Your task to perform on an android device: turn off priority inbox in the gmail app Image 0: 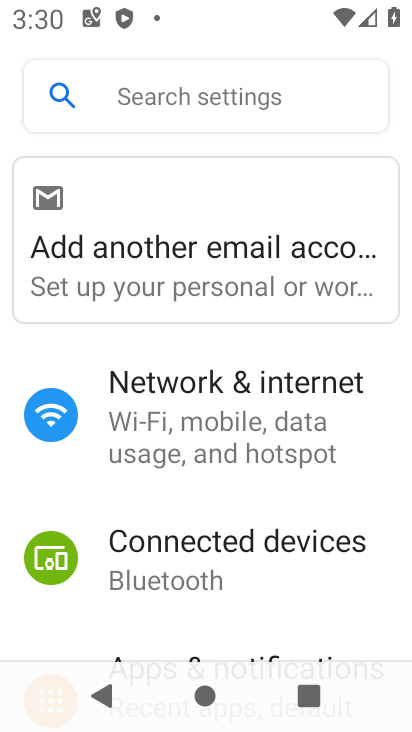
Step 0: press back button
Your task to perform on an android device: turn off priority inbox in the gmail app Image 1: 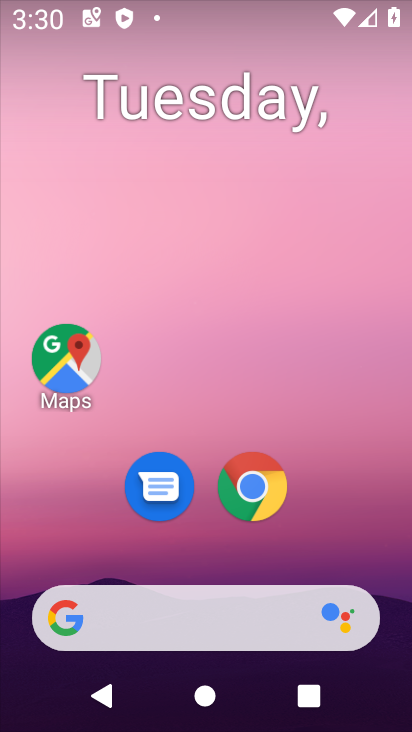
Step 1: drag from (169, 551) to (216, 10)
Your task to perform on an android device: turn off priority inbox in the gmail app Image 2: 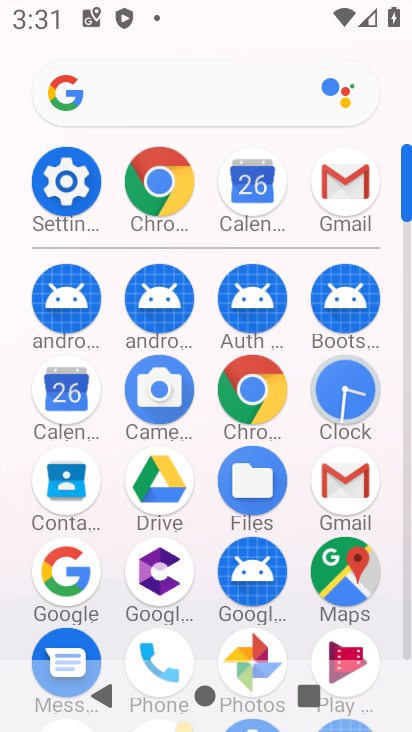
Step 2: click (338, 186)
Your task to perform on an android device: turn off priority inbox in the gmail app Image 3: 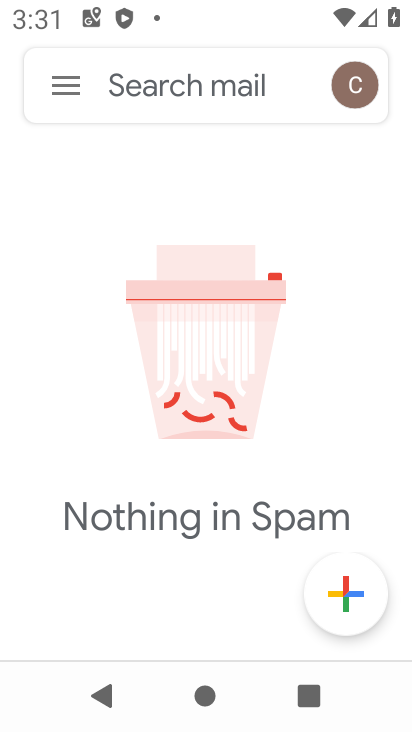
Step 3: click (71, 82)
Your task to perform on an android device: turn off priority inbox in the gmail app Image 4: 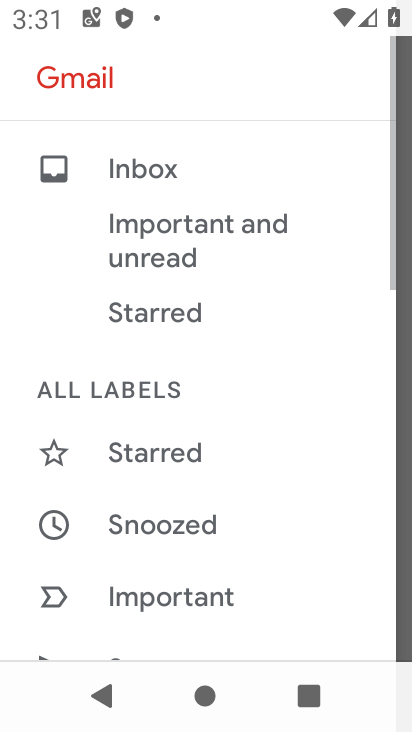
Step 4: drag from (197, 567) to (269, 4)
Your task to perform on an android device: turn off priority inbox in the gmail app Image 5: 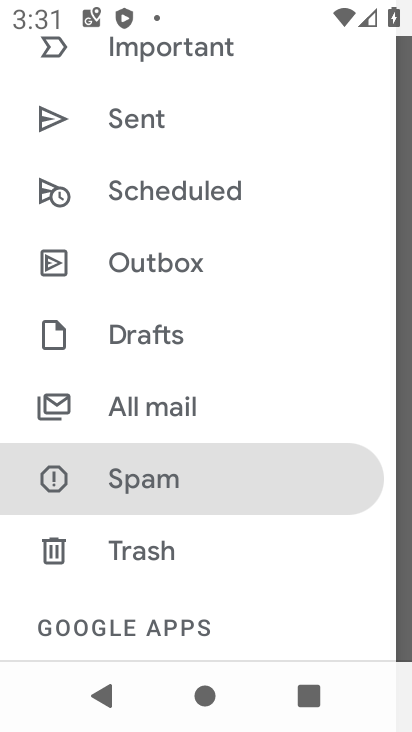
Step 5: drag from (210, 527) to (269, 6)
Your task to perform on an android device: turn off priority inbox in the gmail app Image 6: 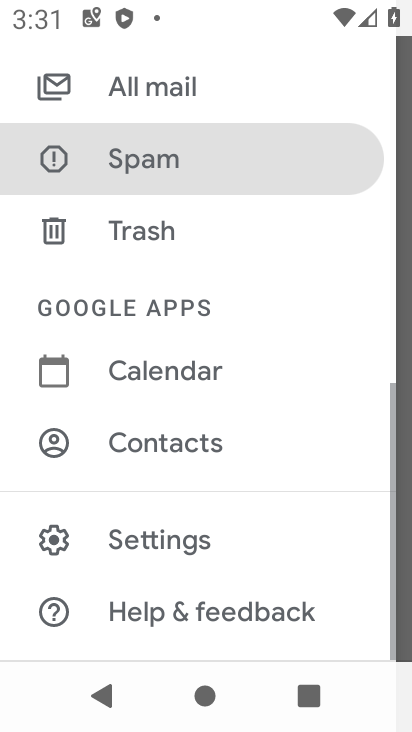
Step 6: click (110, 527)
Your task to perform on an android device: turn off priority inbox in the gmail app Image 7: 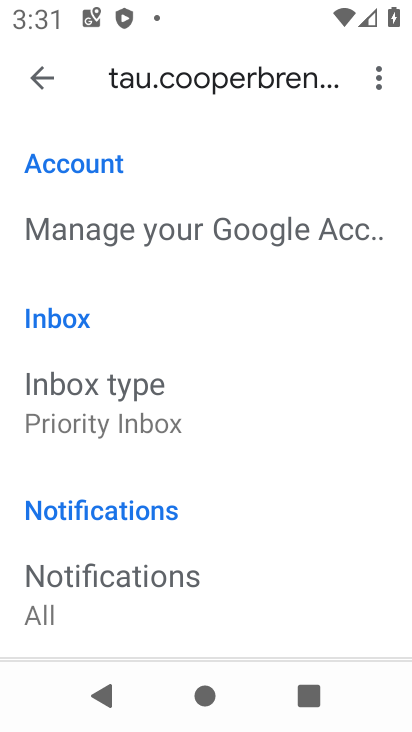
Step 7: click (149, 395)
Your task to perform on an android device: turn off priority inbox in the gmail app Image 8: 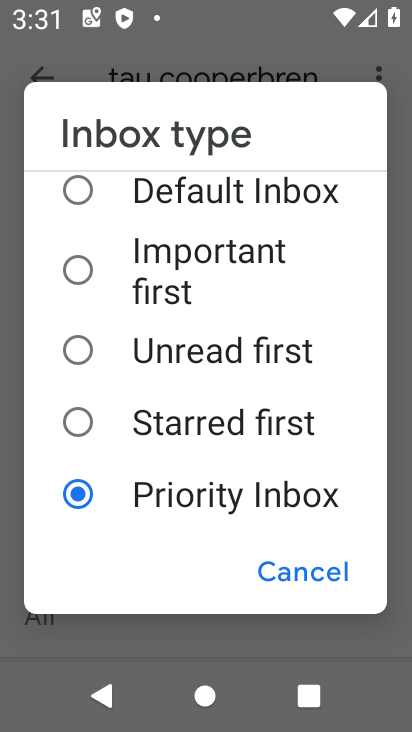
Step 8: click (71, 204)
Your task to perform on an android device: turn off priority inbox in the gmail app Image 9: 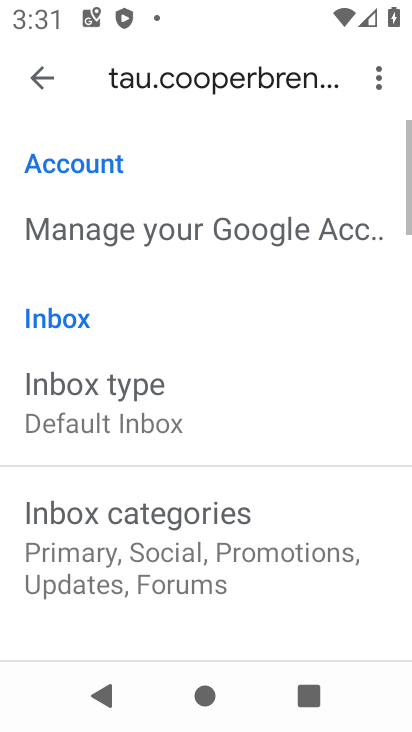
Step 9: task complete